Your task to perform on an android device: turn off javascript in the chrome app Image 0: 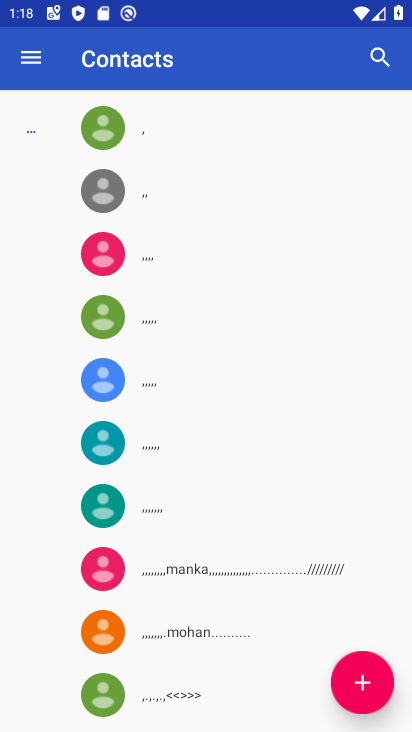
Step 0: press home button
Your task to perform on an android device: turn off javascript in the chrome app Image 1: 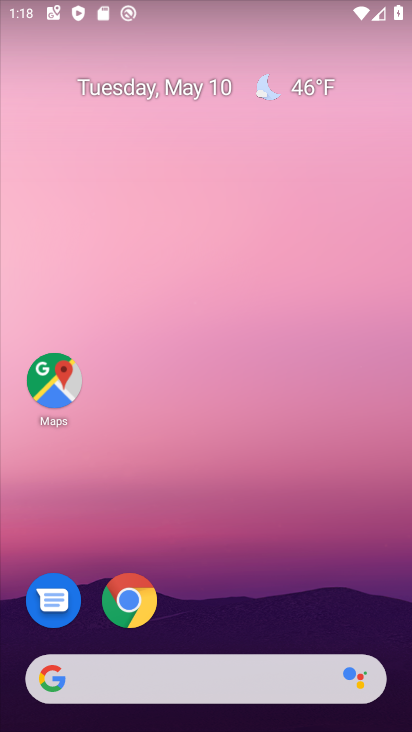
Step 1: click (133, 607)
Your task to perform on an android device: turn off javascript in the chrome app Image 2: 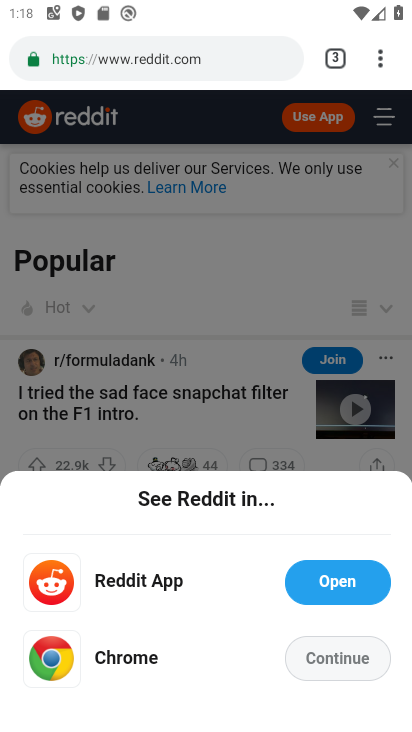
Step 2: drag from (381, 59) to (221, 633)
Your task to perform on an android device: turn off javascript in the chrome app Image 3: 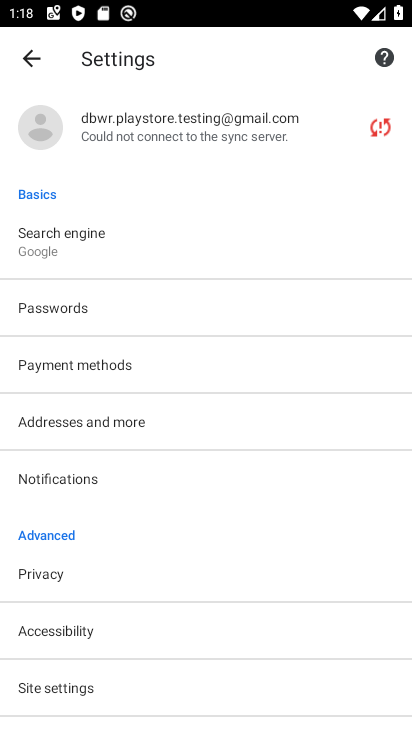
Step 3: click (104, 677)
Your task to perform on an android device: turn off javascript in the chrome app Image 4: 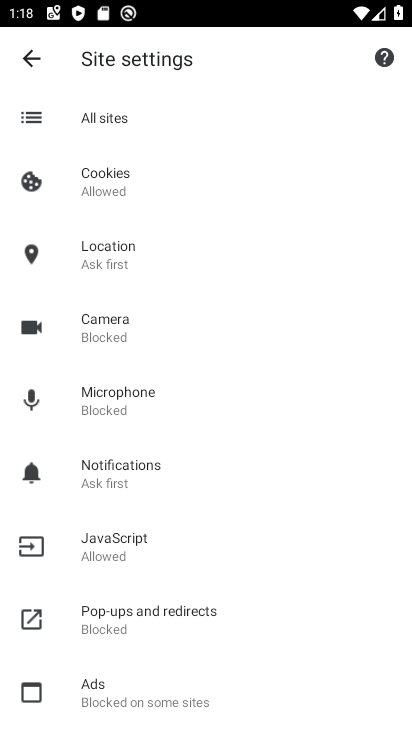
Step 4: click (119, 549)
Your task to perform on an android device: turn off javascript in the chrome app Image 5: 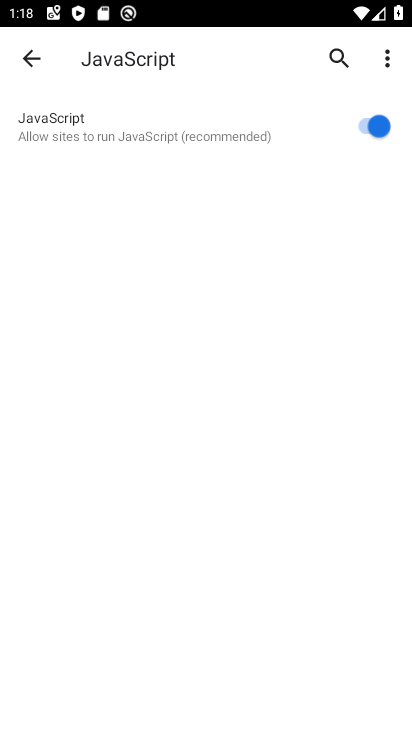
Step 5: click (371, 127)
Your task to perform on an android device: turn off javascript in the chrome app Image 6: 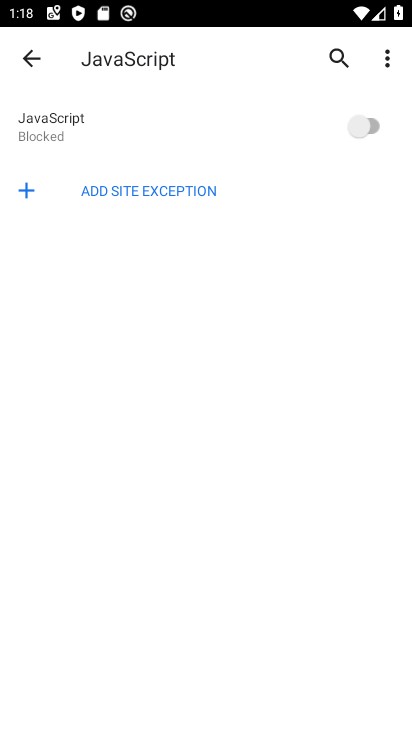
Step 6: task complete